Your task to perform on an android device: move an email to a new category in the gmail app Image 0: 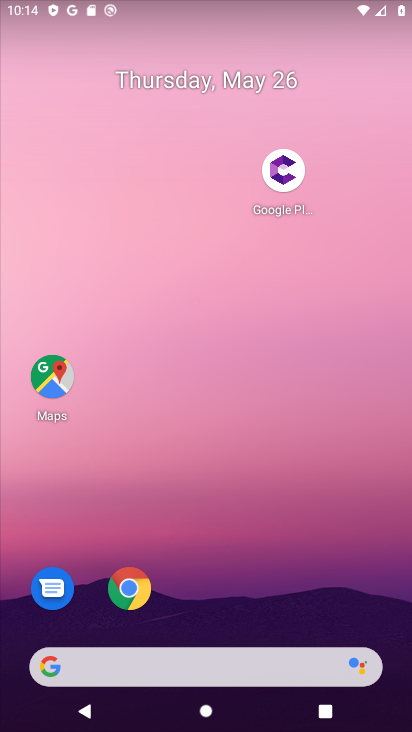
Step 0: drag from (282, 687) to (258, 89)
Your task to perform on an android device: move an email to a new category in the gmail app Image 1: 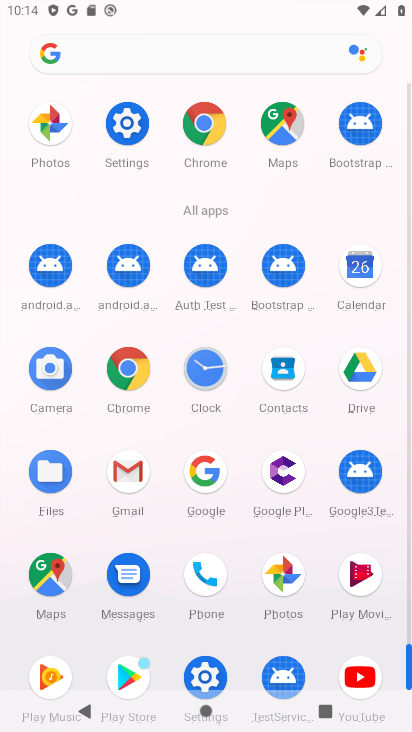
Step 1: click (124, 468)
Your task to perform on an android device: move an email to a new category in the gmail app Image 2: 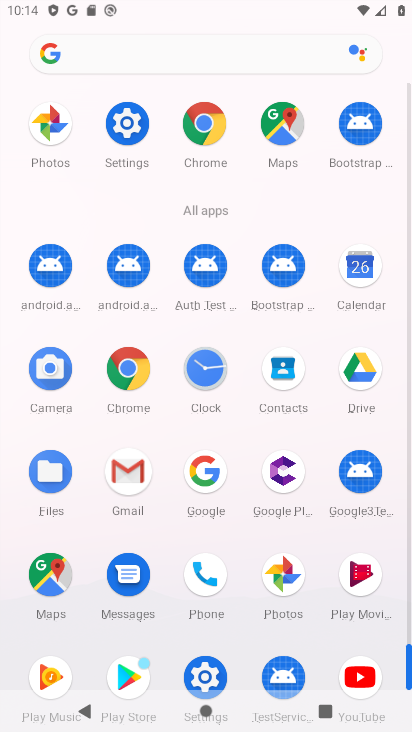
Step 2: click (123, 470)
Your task to perform on an android device: move an email to a new category in the gmail app Image 3: 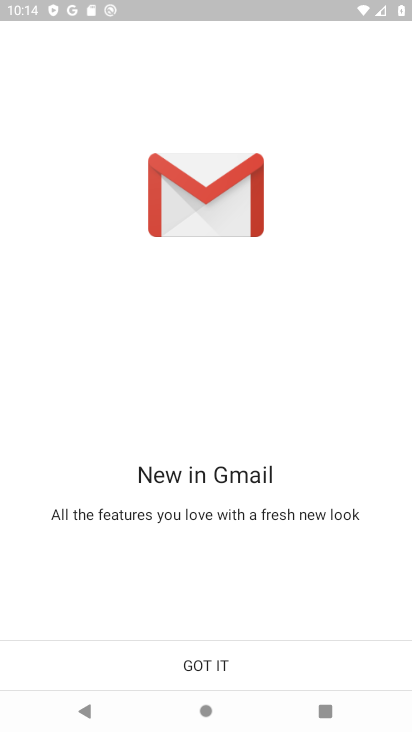
Step 3: click (203, 664)
Your task to perform on an android device: move an email to a new category in the gmail app Image 4: 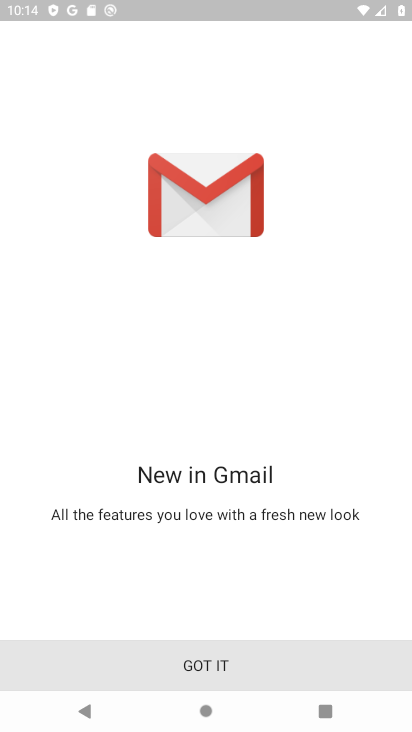
Step 4: click (203, 664)
Your task to perform on an android device: move an email to a new category in the gmail app Image 5: 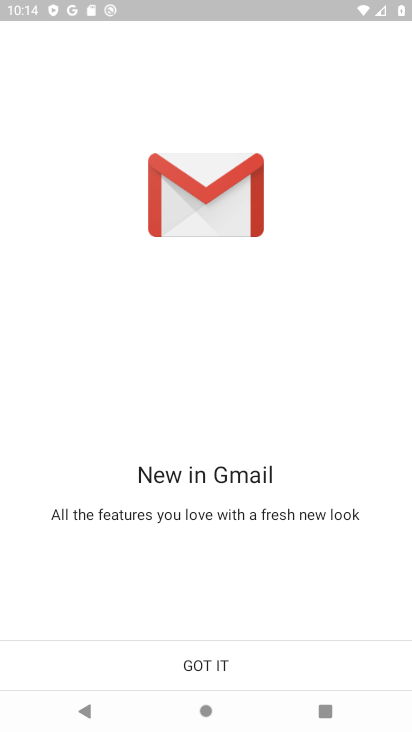
Step 5: click (203, 661)
Your task to perform on an android device: move an email to a new category in the gmail app Image 6: 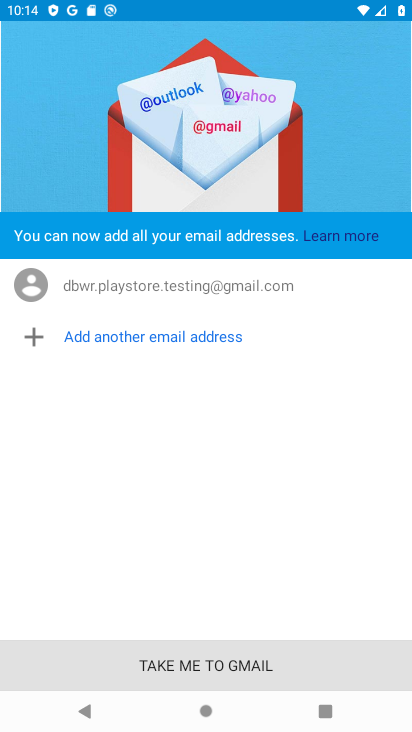
Step 6: click (203, 674)
Your task to perform on an android device: move an email to a new category in the gmail app Image 7: 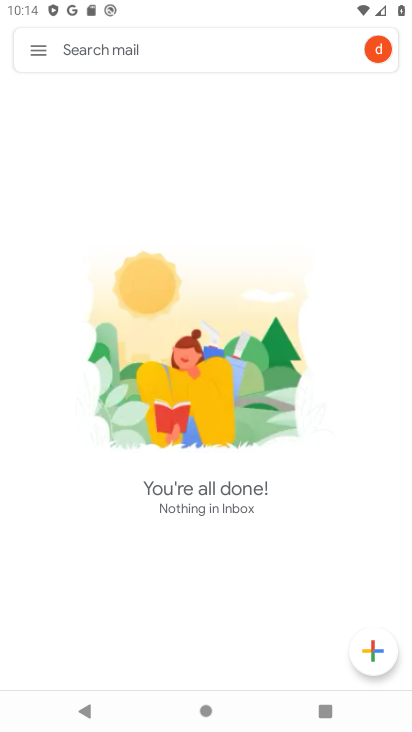
Step 7: click (33, 59)
Your task to perform on an android device: move an email to a new category in the gmail app Image 8: 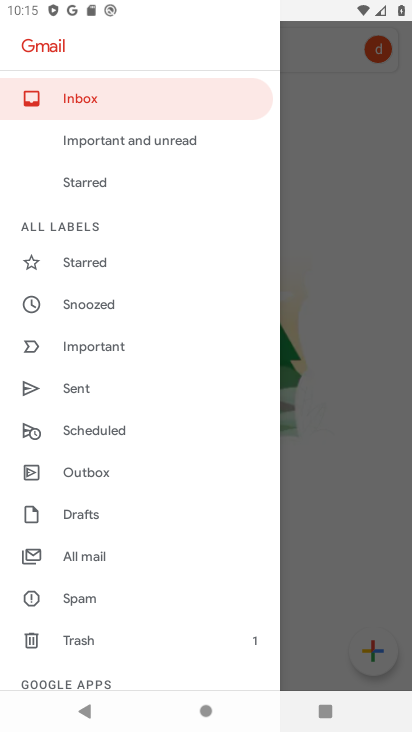
Step 8: click (88, 554)
Your task to perform on an android device: move an email to a new category in the gmail app Image 9: 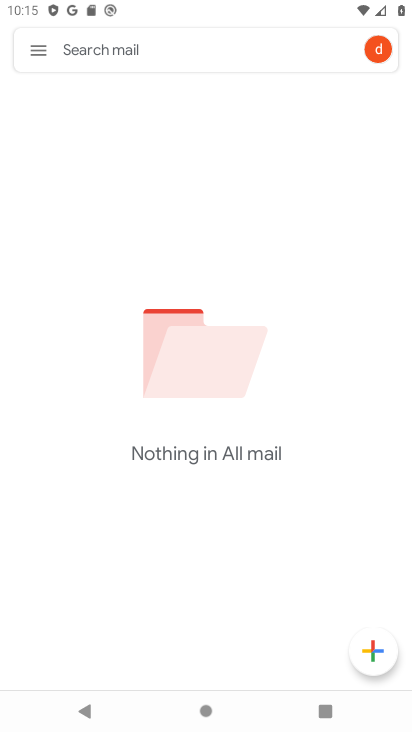
Step 9: task complete